Your task to perform on an android device: Open battery settings Image 0: 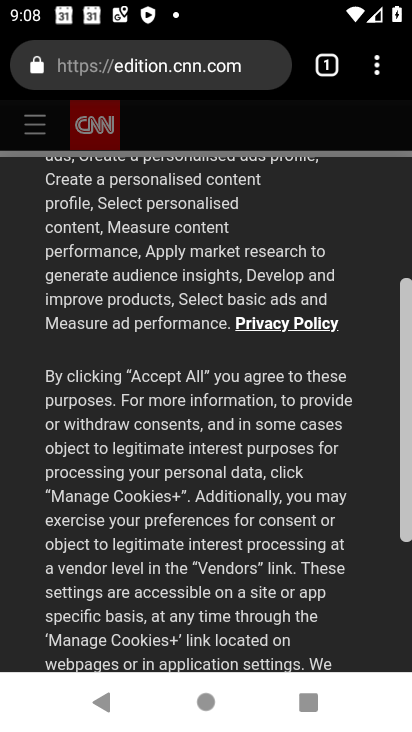
Step 0: press home button
Your task to perform on an android device: Open battery settings Image 1: 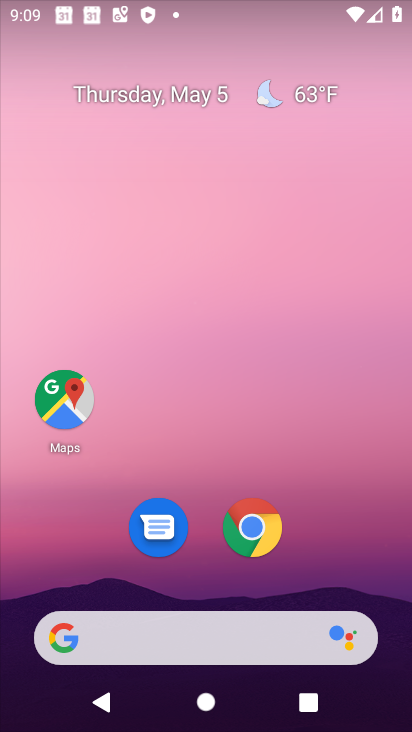
Step 1: drag from (249, 669) to (309, 4)
Your task to perform on an android device: Open battery settings Image 2: 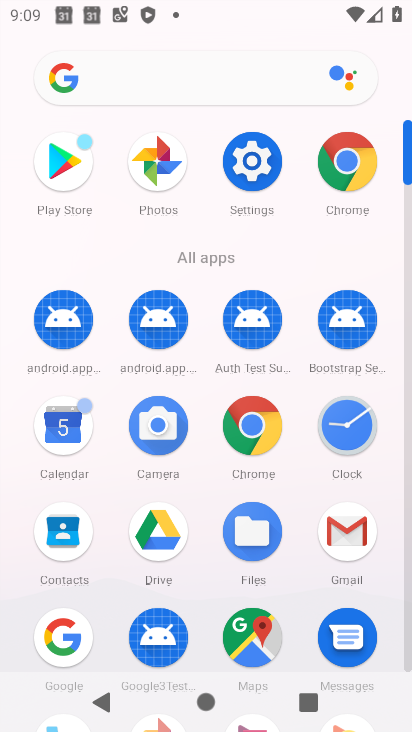
Step 2: click (243, 171)
Your task to perform on an android device: Open battery settings Image 3: 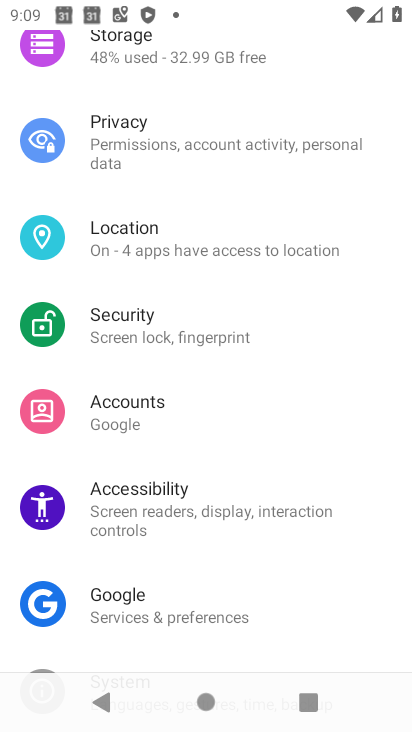
Step 3: drag from (258, 62) to (255, 620)
Your task to perform on an android device: Open battery settings Image 4: 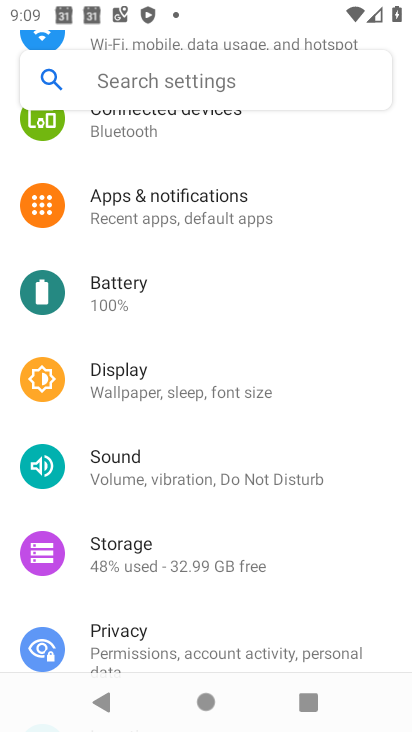
Step 4: click (186, 266)
Your task to perform on an android device: Open battery settings Image 5: 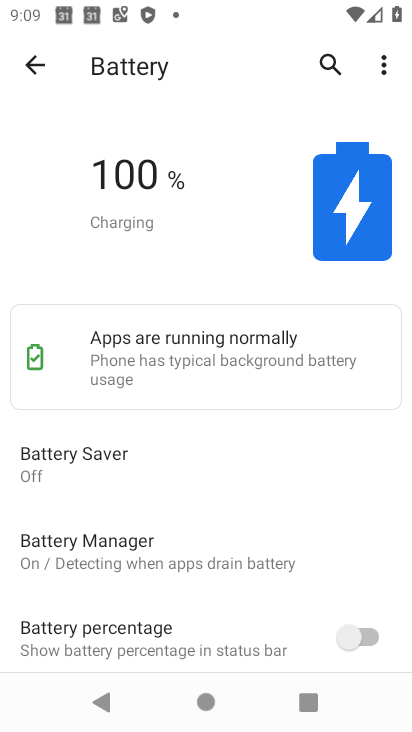
Step 5: task complete